Your task to perform on an android device: Open Google Maps and go to "Timeline" Image 0: 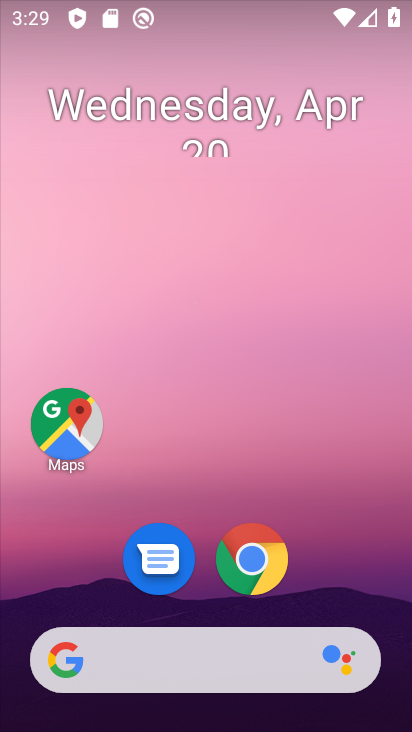
Step 0: click (58, 420)
Your task to perform on an android device: Open Google Maps and go to "Timeline" Image 1: 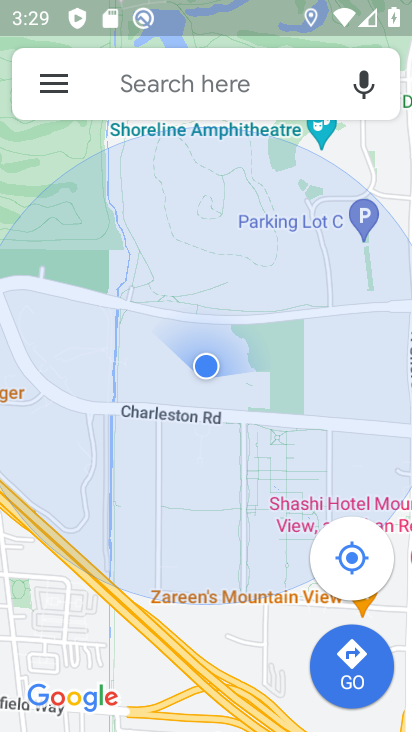
Step 1: click (57, 86)
Your task to perform on an android device: Open Google Maps and go to "Timeline" Image 2: 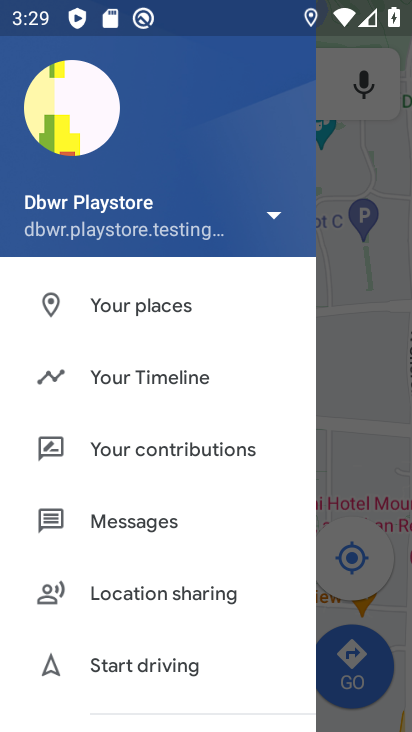
Step 2: click (157, 379)
Your task to perform on an android device: Open Google Maps and go to "Timeline" Image 3: 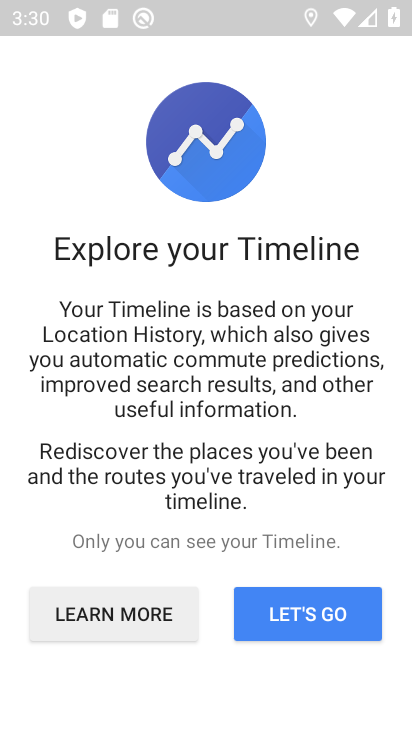
Step 3: task complete